Your task to perform on an android device: turn on sleep mode Image 0: 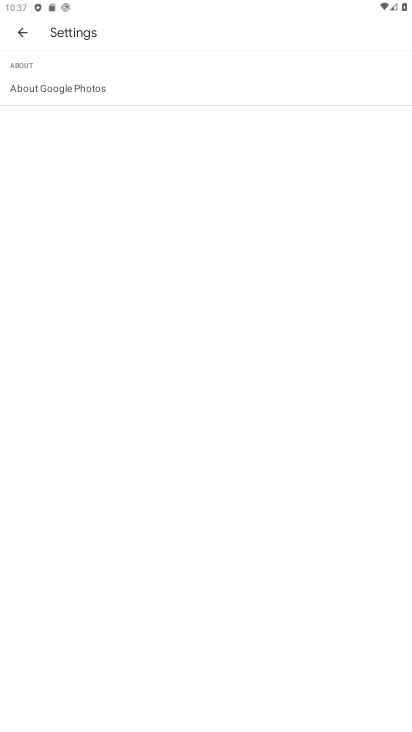
Step 0: press home button
Your task to perform on an android device: turn on sleep mode Image 1: 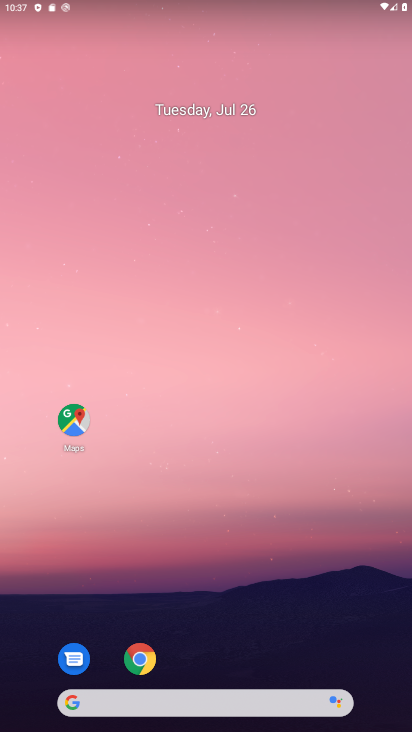
Step 1: drag from (9, 648) to (165, 219)
Your task to perform on an android device: turn on sleep mode Image 2: 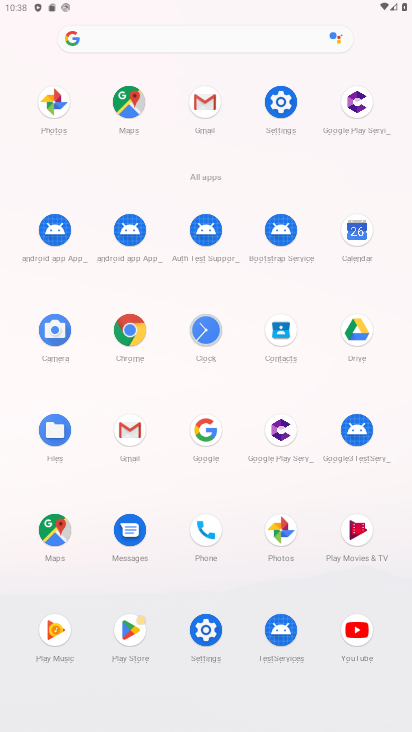
Step 2: click (286, 107)
Your task to perform on an android device: turn on sleep mode Image 3: 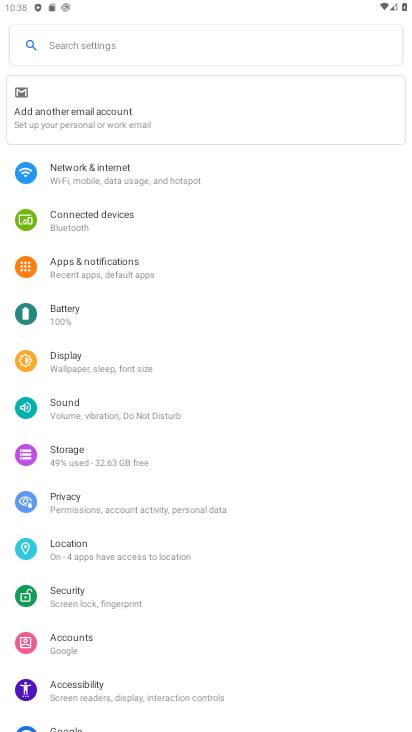
Step 3: click (276, 116)
Your task to perform on an android device: turn on sleep mode Image 4: 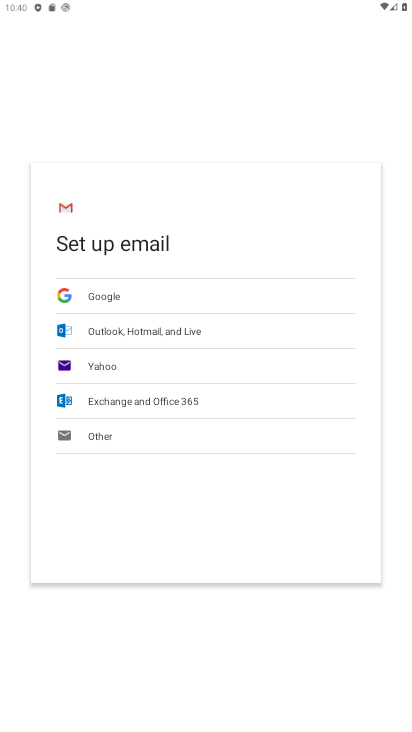
Step 4: task complete